Your task to perform on an android device: turn on showing notifications on the lock screen Image 0: 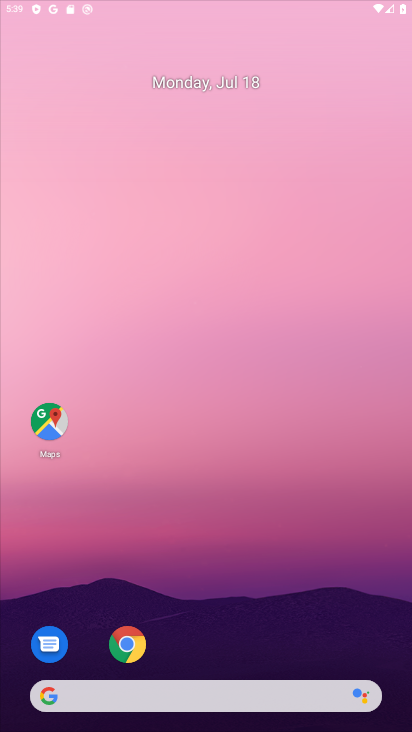
Step 0: press home button
Your task to perform on an android device: turn on showing notifications on the lock screen Image 1: 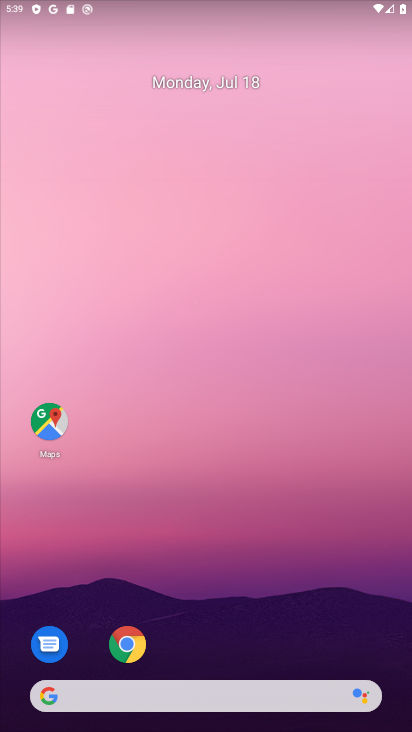
Step 1: drag from (265, 624) to (237, 36)
Your task to perform on an android device: turn on showing notifications on the lock screen Image 2: 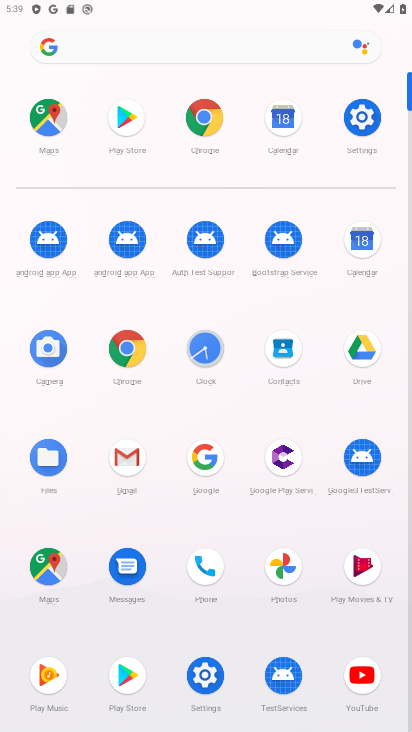
Step 2: click (358, 107)
Your task to perform on an android device: turn on showing notifications on the lock screen Image 3: 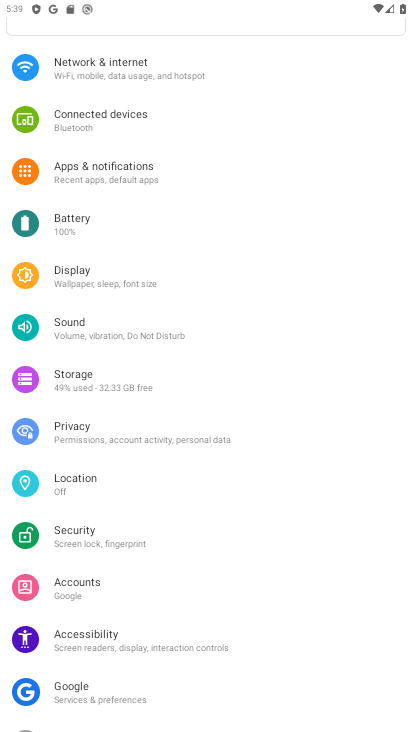
Step 3: click (137, 172)
Your task to perform on an android device: turn on showing notifications on the lock screen Image 4: 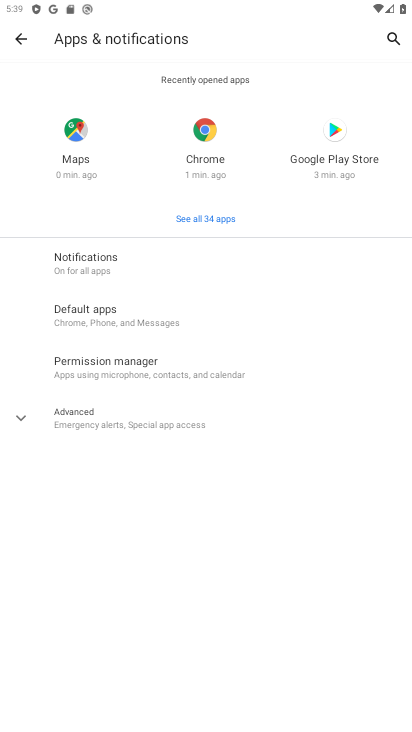
Step 4: click (96, 264)
Your task to perform on an android device: turn on showing notifications on the lock screen Image 5: 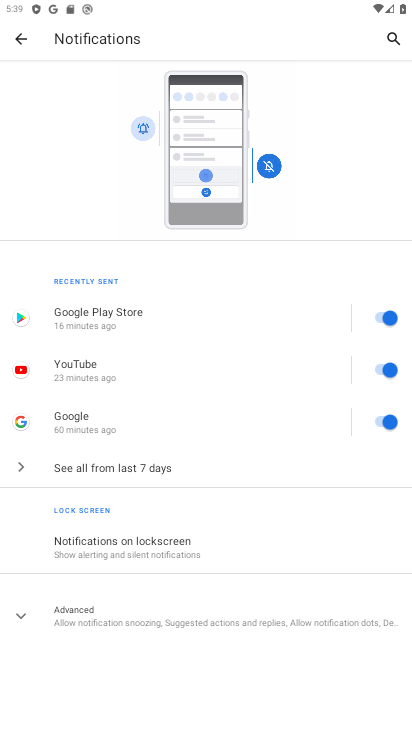
Step 5: click (109, 547)
Your task to perform on an android device: turn on showing notifications on the lock screen Image 6: 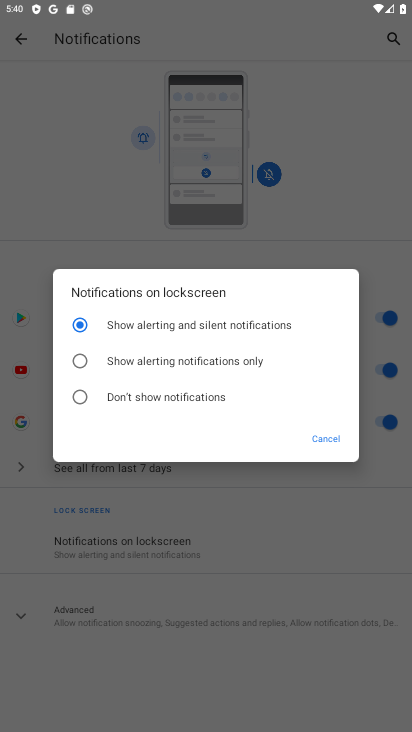
Step 6: task complete